Your task to perform on an android device: Open Google Chrome Image 0: 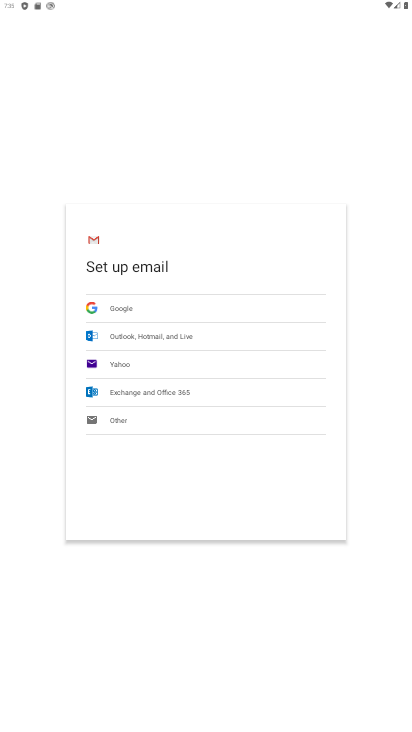
Step 0: press home button
Your task to perform on an android device: Open Google Chrome Image 1: 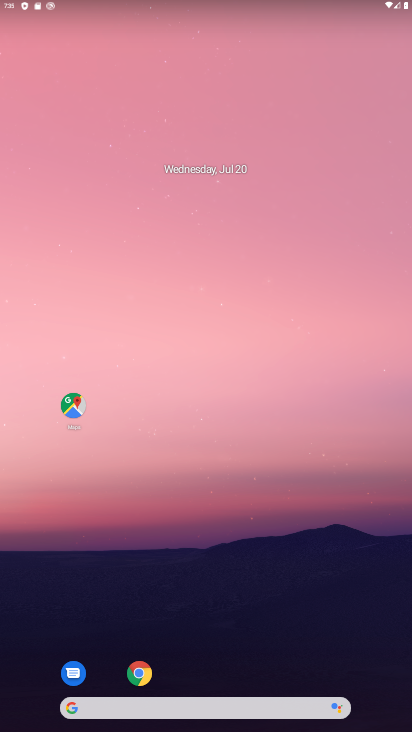
Step 1: drag from (194, 553) to (227, 6)
Your task to perform on an android device: Open Google Chrome Image 2: 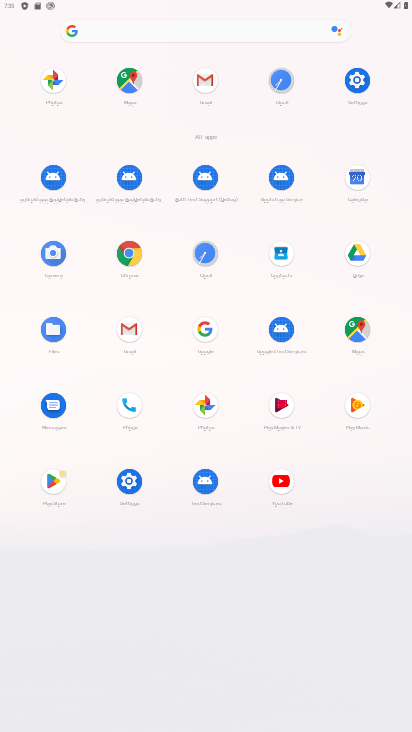
Step 2: click (134, 267)
Your task to perform on an android device: Open Google Chrome Image 3: 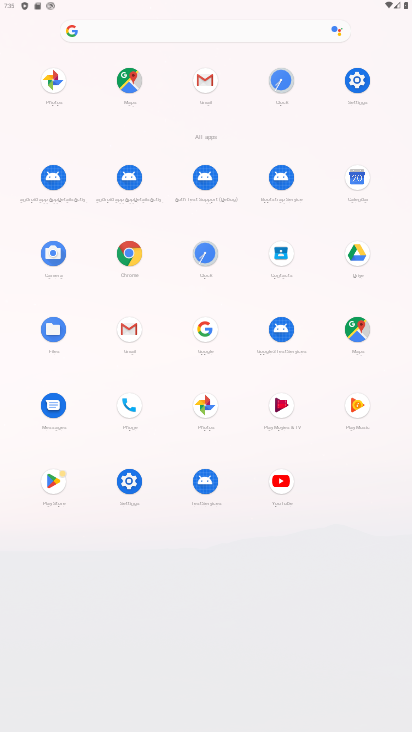
Step 3: click (125, 250)
Your task to perform on an android device: Open Google Chrome Image 4: 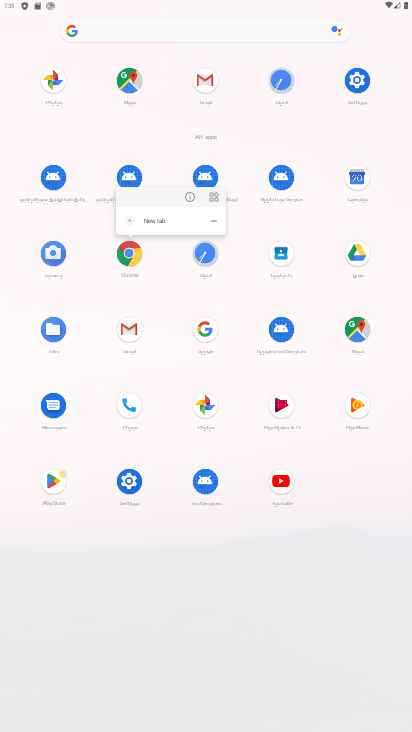
Step 4: click (185, 197)
Your task to perform on an android device: Open Google Chrome Image 5: 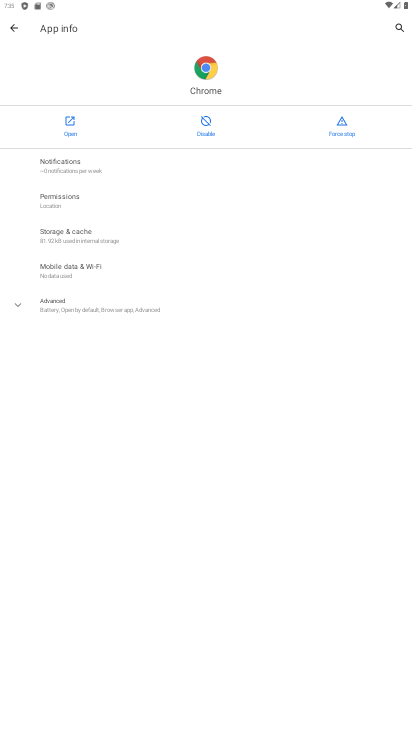
Step 5: click (64, 118)
Your task to perform on an android device: Open Google Chrome Image 6: 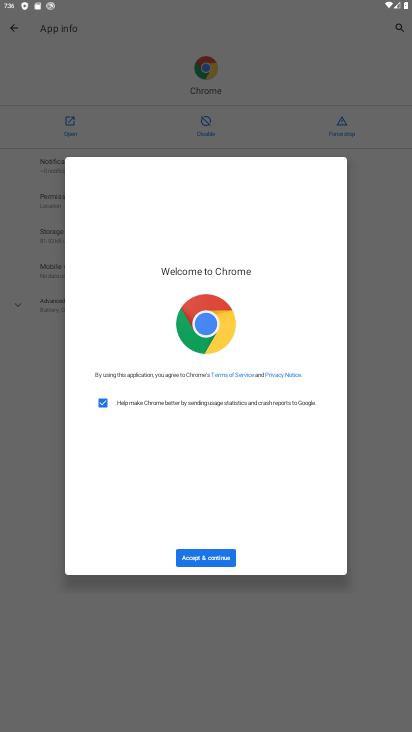
Step 6: click (216, 567)
Your task to perform on an android device: Open Google Chrome Image 7: 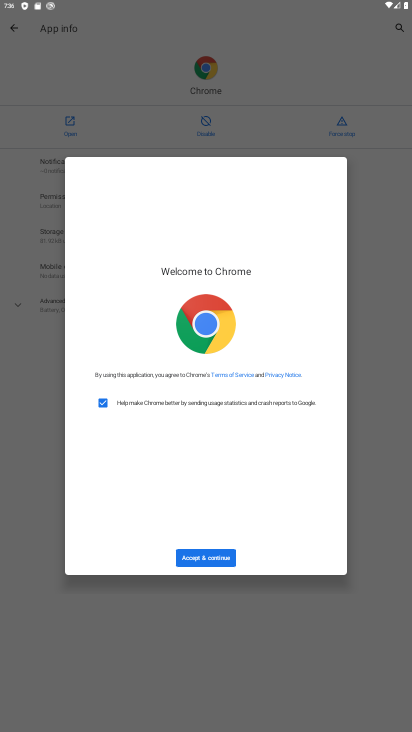
Step 7: click (203, 555)
Your task to perform on an android device: Open Google Chrome Image 8: 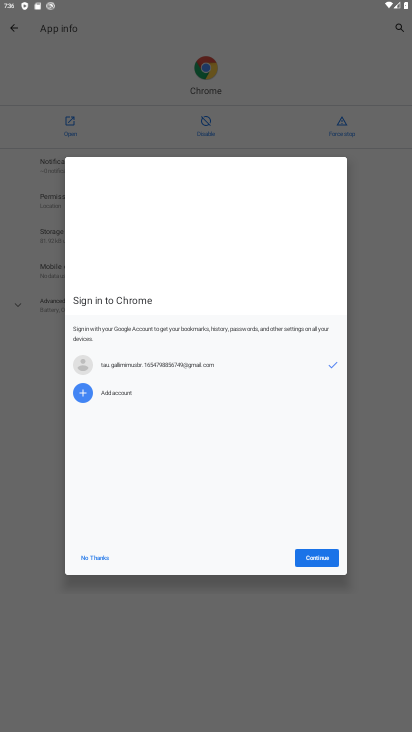
Step 8: click (316, 556)
Your task to perform on an android device: Open Google Chrome Image 9: 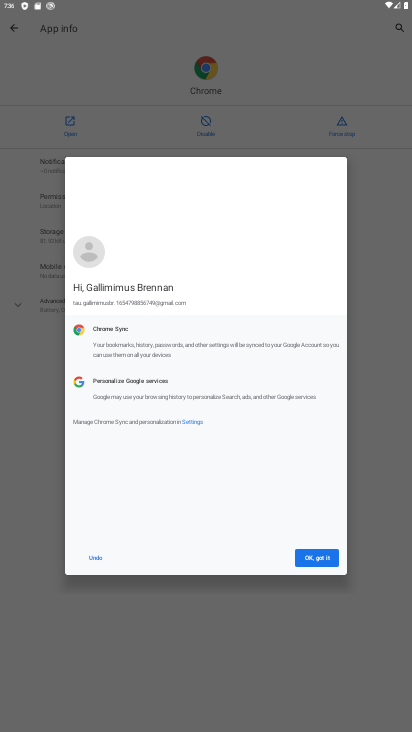
Step 9: click (311, 561)
Your task to perform on an android device: Open Google Chrome Image 10: 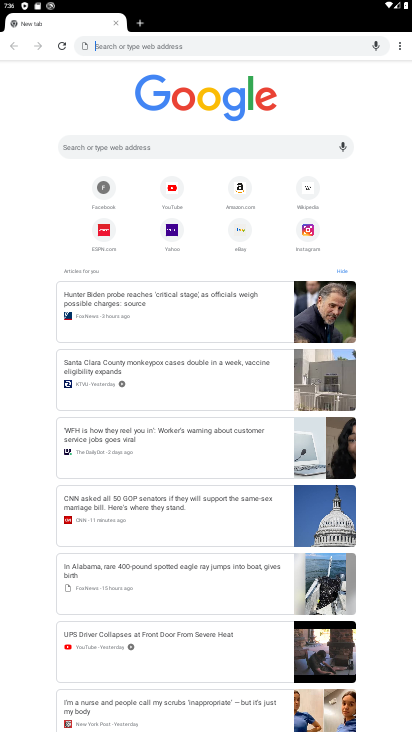
Step 10: task complete